Your task to perform on an android device: Open display settings Image 0: 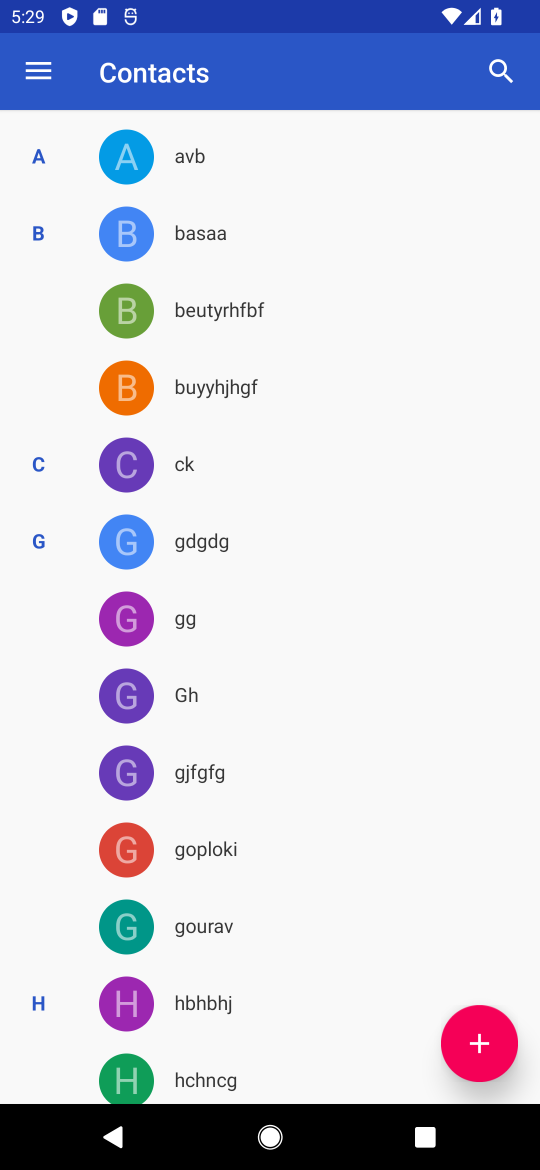
Step 0: press home button
Your task to perform on an android device: Open display settings Image 1: 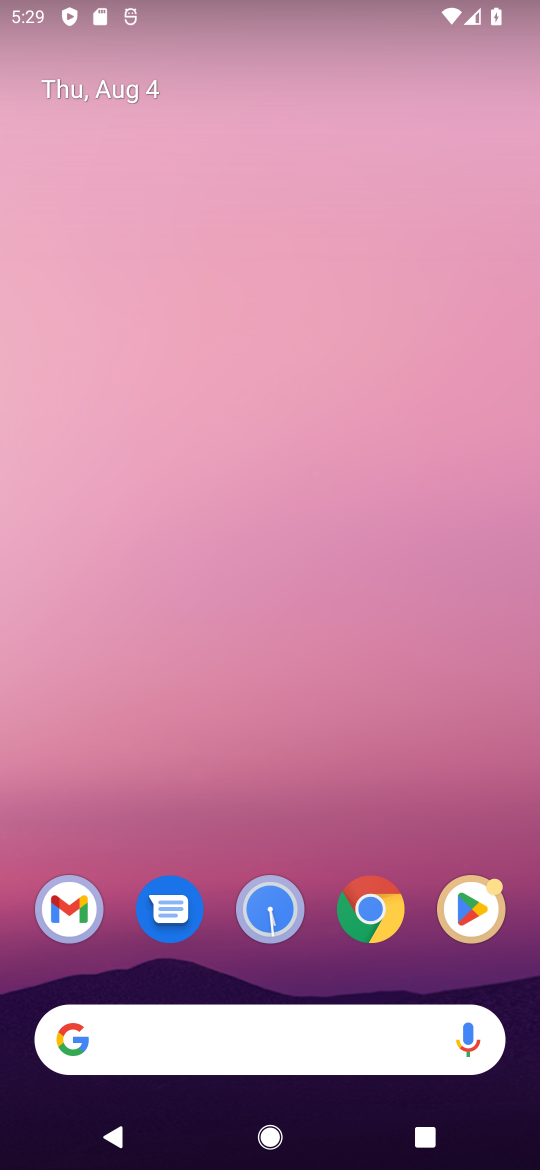
Step 1: drag from (347, 865) to (538, 233)
Your task to perform on an android device: Open display settings Image 2: 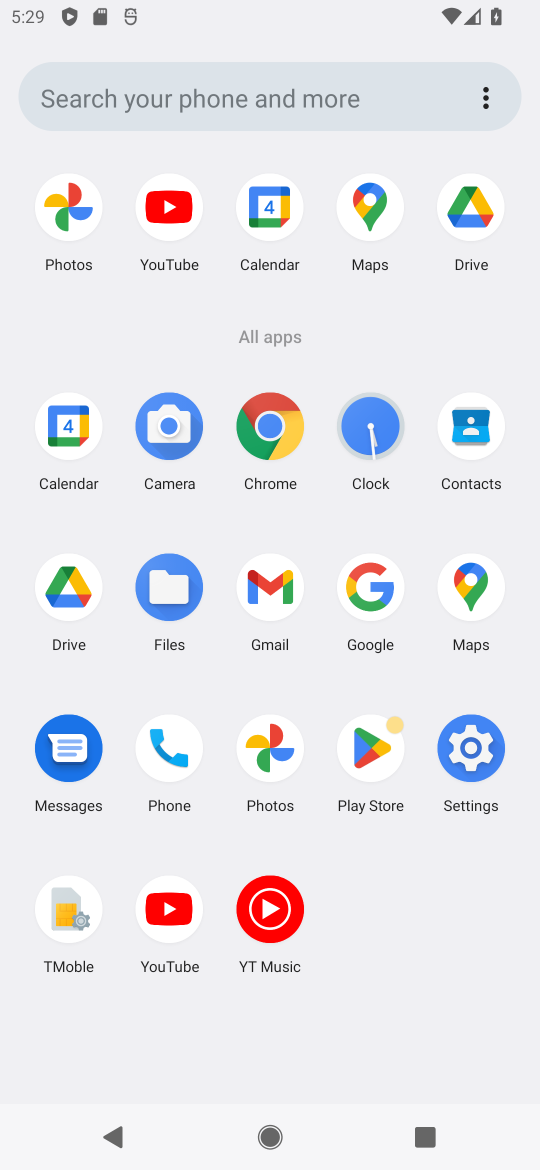
Step 2: click (473, 728)
Your task to perform on an android device: Open display settings Image 3: 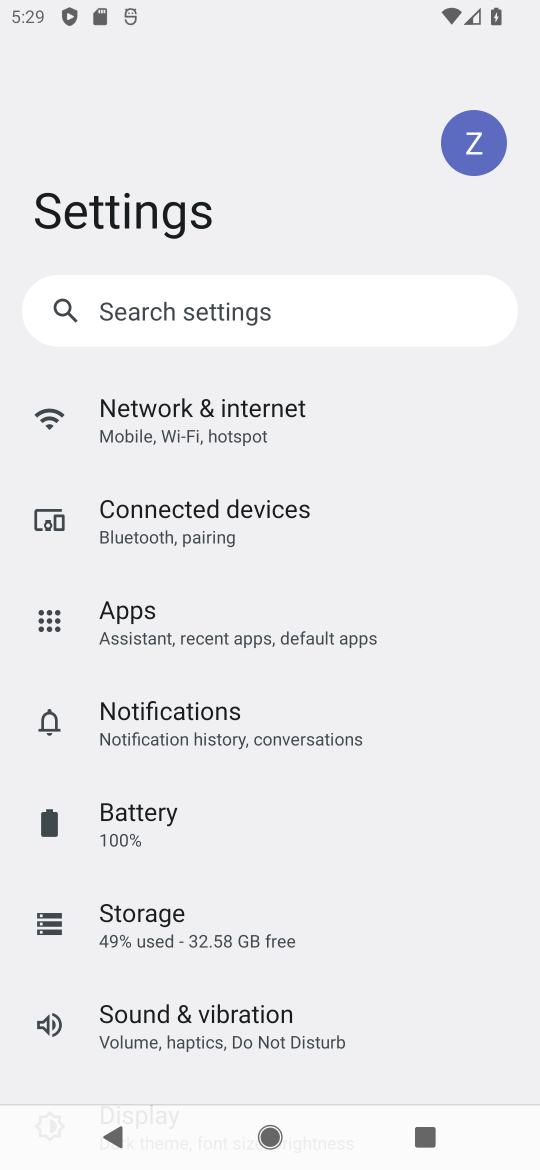
Step 3: drag from (194, 917) to (237, 273)
Your task to perform on an android device: Open display settings Image 4: 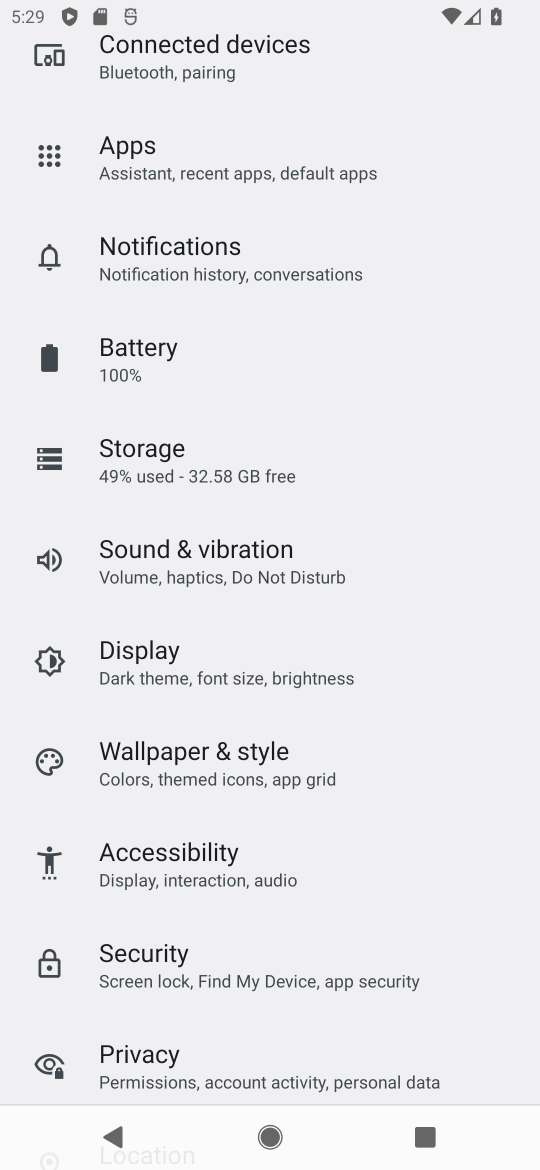
Step 4: click (178, 672)
Your task to perform on an android device: Open display settings Image 5: 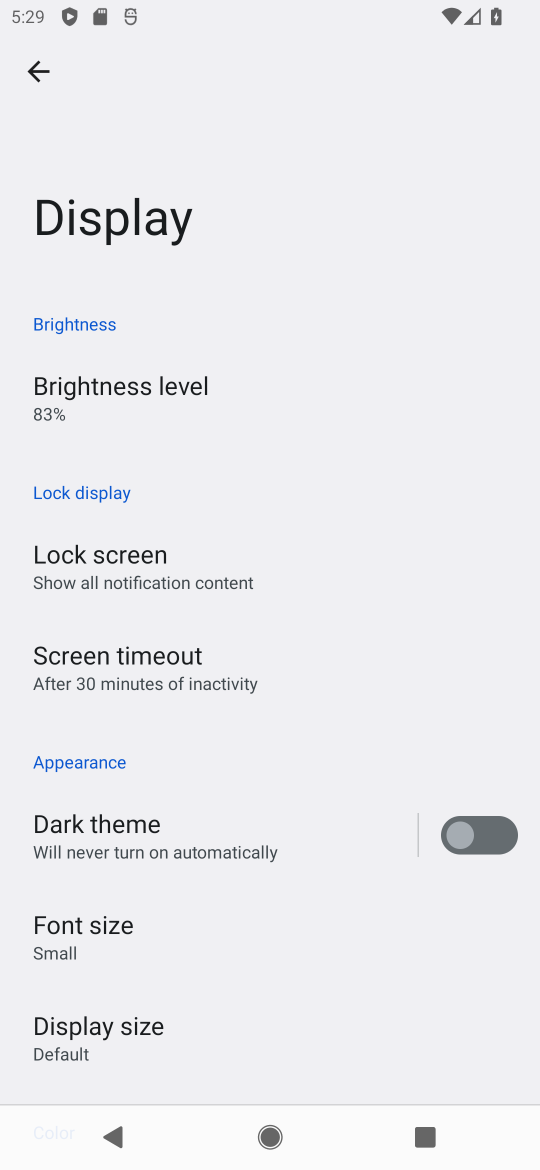
Step 5: task complete